Your task to perform on an android device: Open the web browser Image 0: 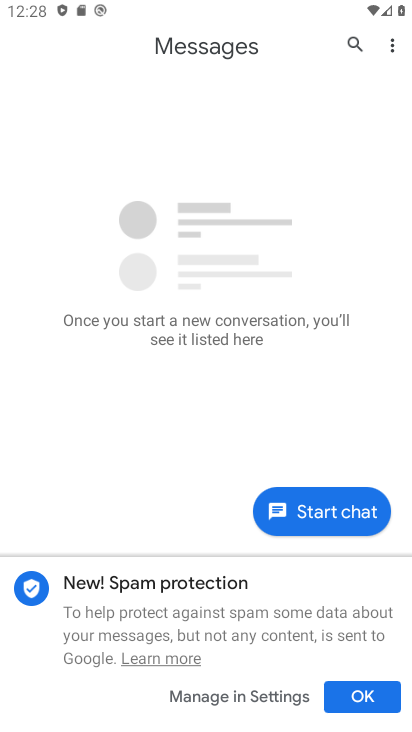
Step 0: press home button
Your task to perform on an android device: Open the web browser Image 1: 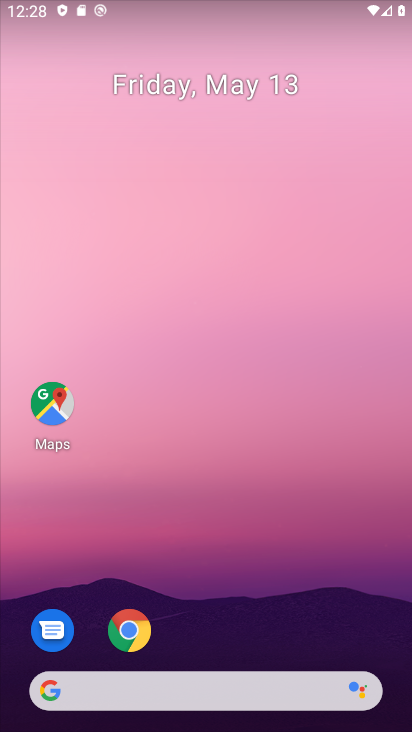
Step 1: drag from (240, 710) to (221, 305)
Your task to perform on an android device: Open the web browser Image 2: 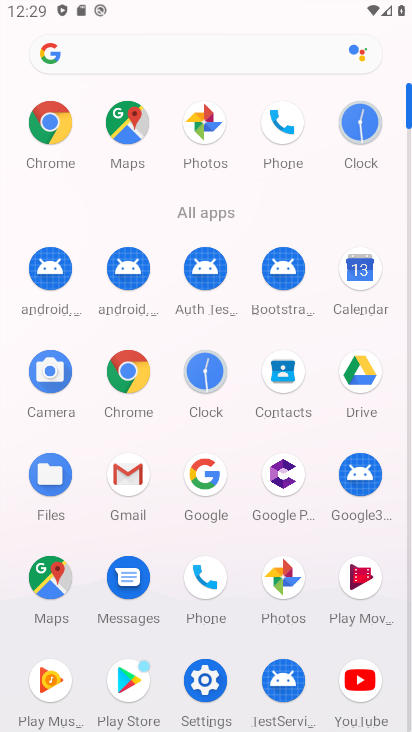
Step 2: click (56, 150)
Your task to perform on an android device: Open the web browser Image 3: 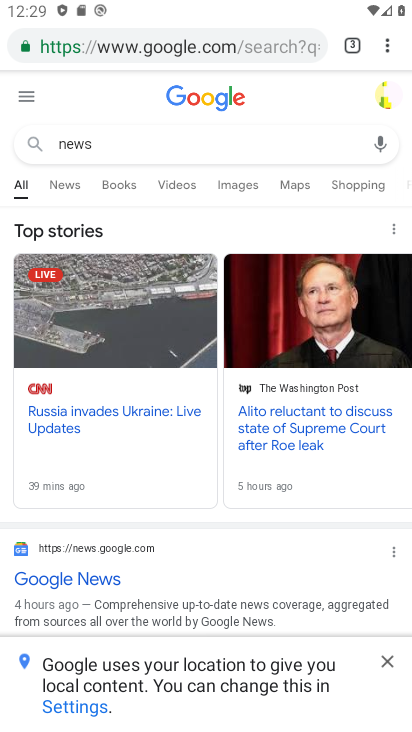
Step 3: click (156, 41)
Your task to perform on an android device: Open the web browser Image 4: 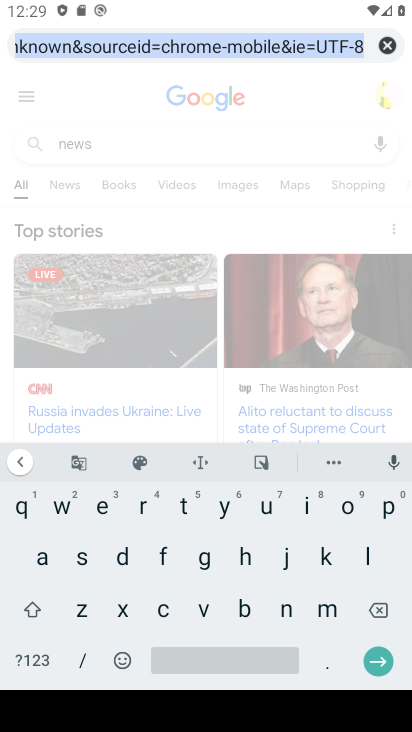
Step 4: click (379, 46)
Your task to perform on an android device: Open the web browser Image 5: 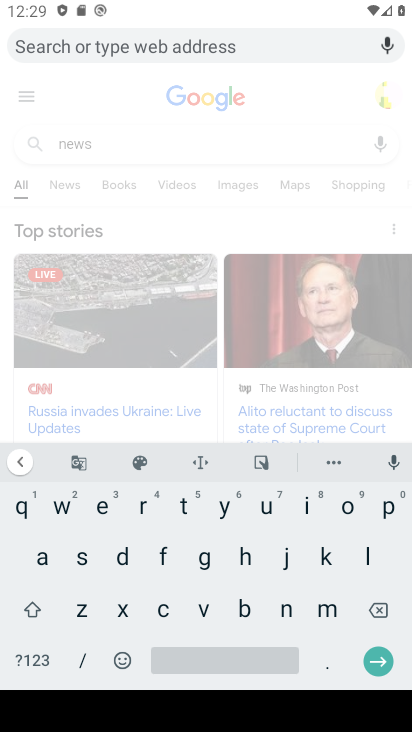
Step 5: task complete